Your task to perform on an android device: delete a single message in the gmail app Image 0: 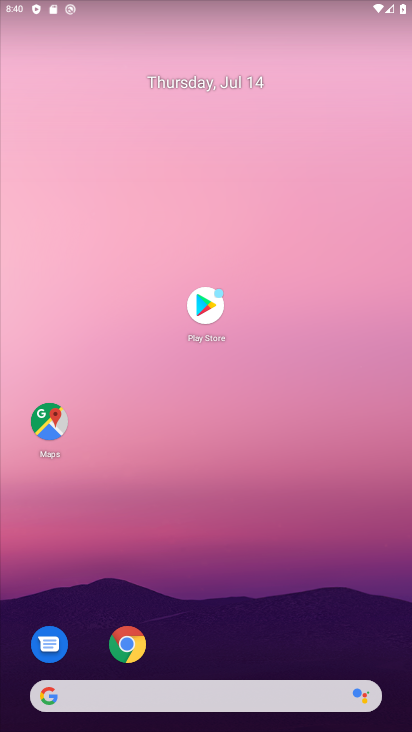
Step 0: drag from (190, 627) to (244, 177)
Your task to perform on an android device: delete a single message in the gmail app Image 1: 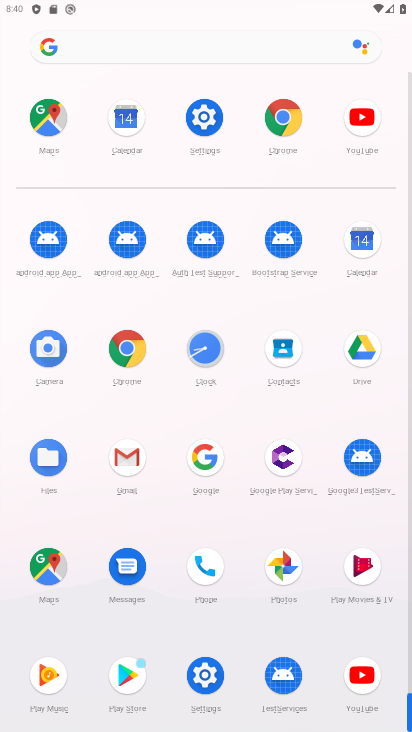
Step 1: click (128, 449)
Your task to perform on an android device: delete a single message in the gmail app Image 2: 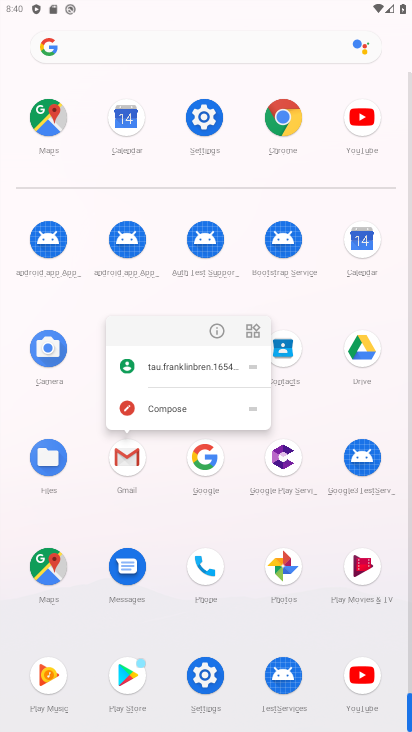
Step 2: click (217, 334)
Your task to perform on an android device: delete a single message in the gmail app Image 3: 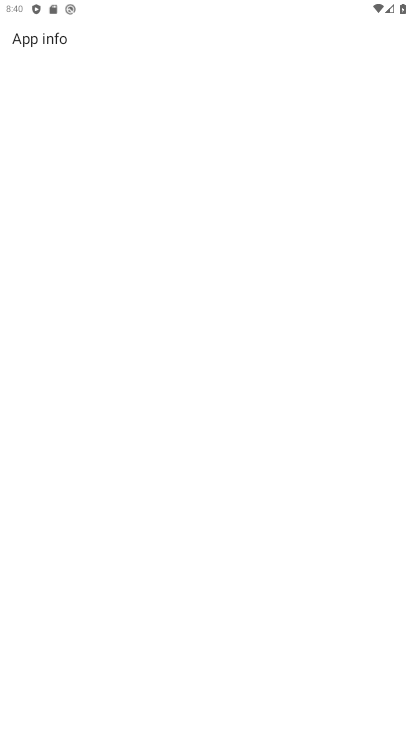
Step 3: drag from (210, 606) to (271, 266)
Your task to perform on an android device: delete a single message in the gmail app Image 4: 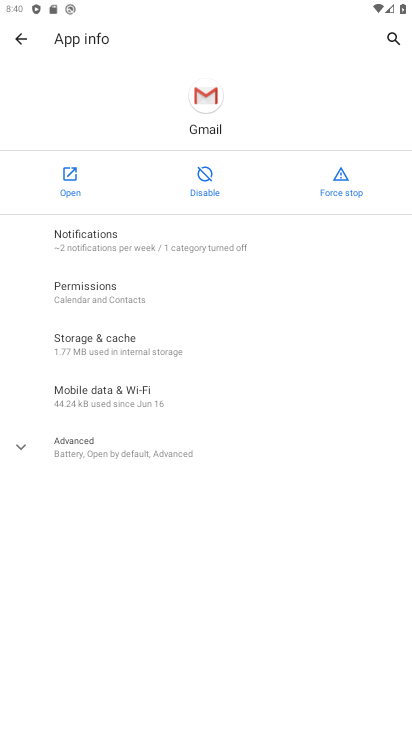
Step 4: click (53, 171)
Your task to perform on an android device: delete a single message in the gmail app Image 5: 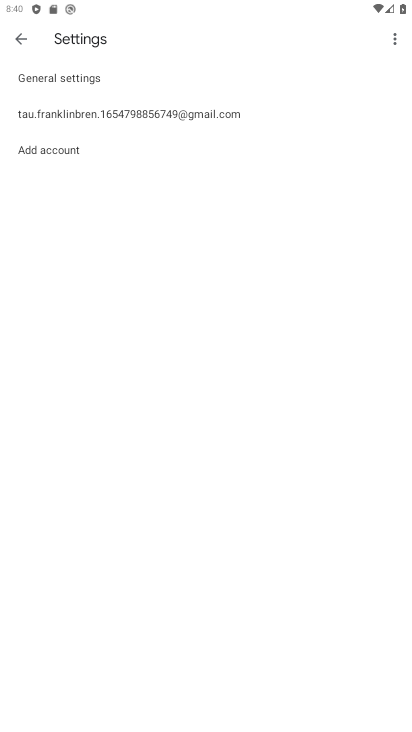
Step 5: drag from (172, 521) to (177, 248)
Your task to perform on an android device: delete a single message in the gmail app Image 6: 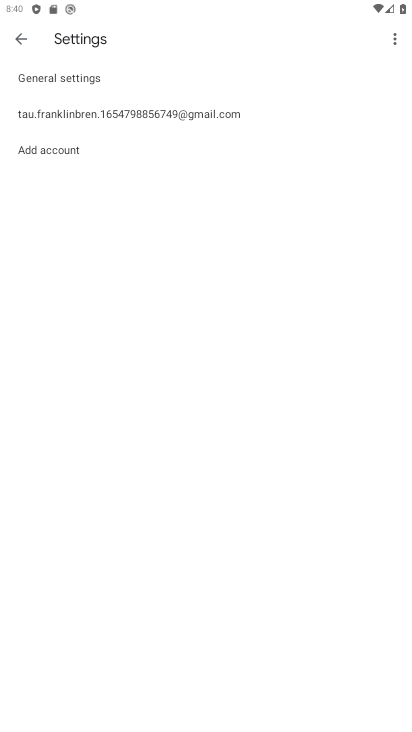
Step 6: click (132, 111)
Your task to perform on an android device: delete a single message in the gmail app Image 7: 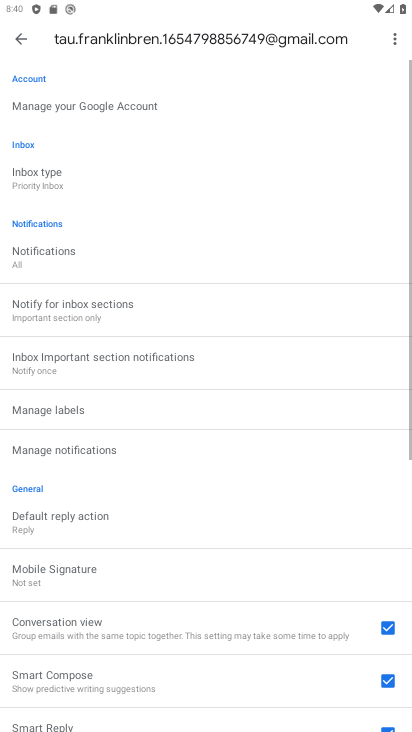
Step 7: press back button
Your task to perform on an android device: delete a single message in the gmail app Image 8: 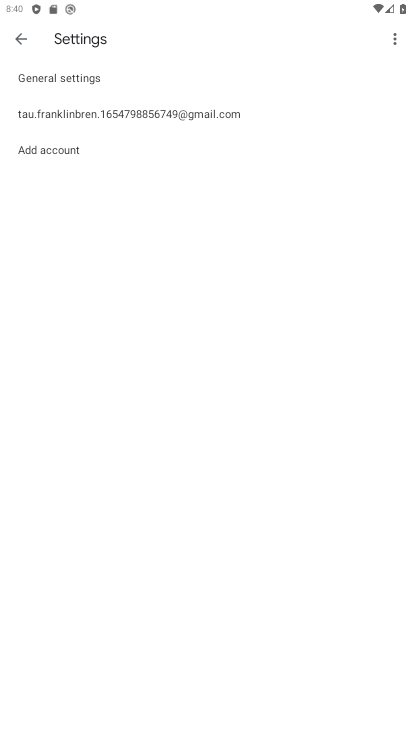
Step 8: press back button
Your task to perform on an android device: delete a single message in the gmail app Image 9: 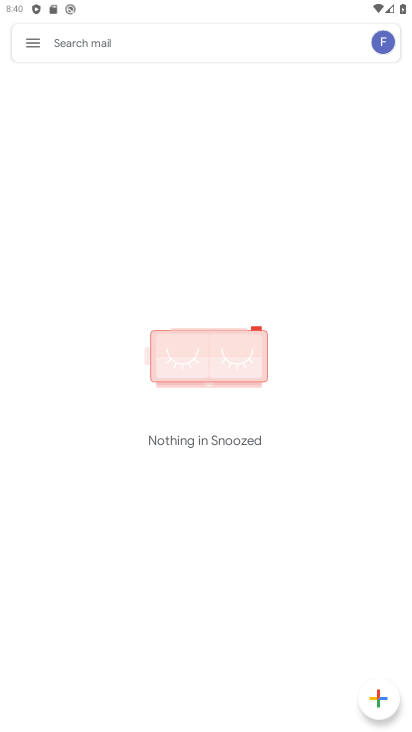
Step 9: click (240, 409)
Your task to perform on an android device: delete a single message in the gmail app Image 10: 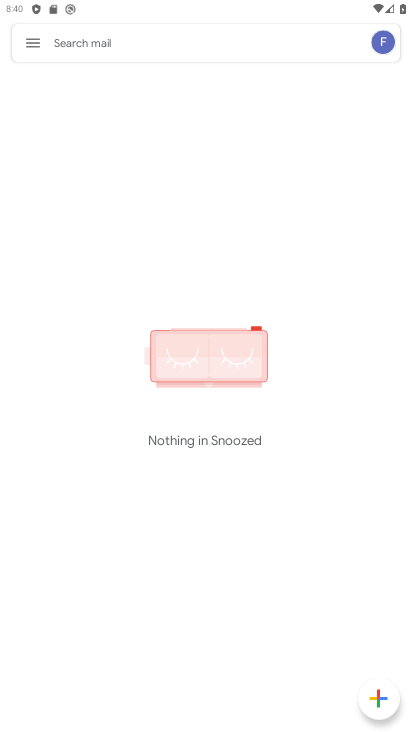
Step 10: task complete